Your task to perform on an android device: turn off translation in the chrome app Image 0: 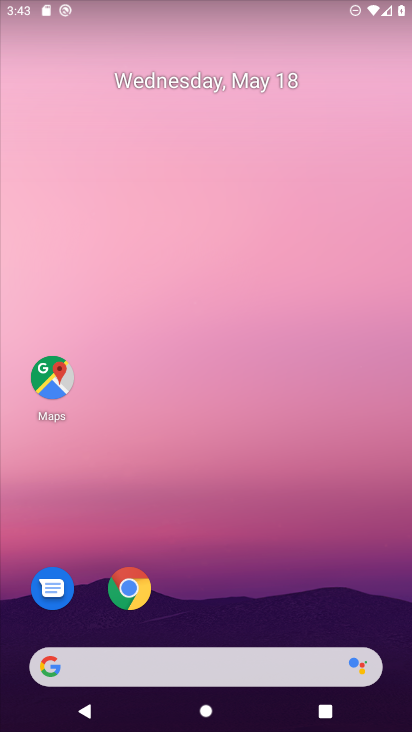
Step 0: drag from (267, 540) to (332, 127)
Your task to perform on an android device: turn off translation in the chrome app Image 1: 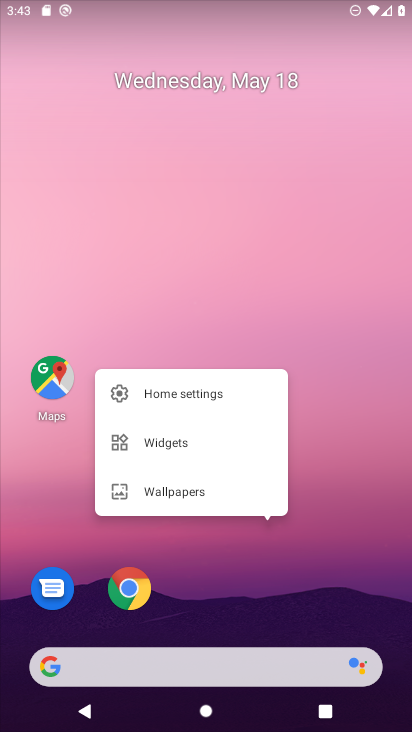
Step 1: click (103, 597)
Your task to perform on an android device: turn off translation in the chrome app Image 2: 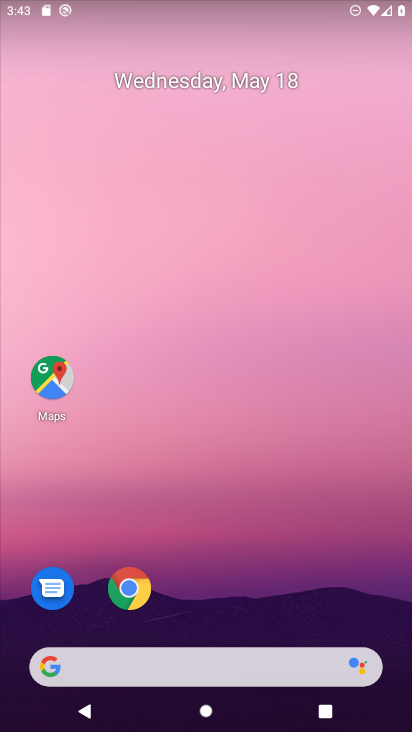
Step 2: click (137, 597)
Your task to perform on an android device: turn off translation in the chrome app Image 3: 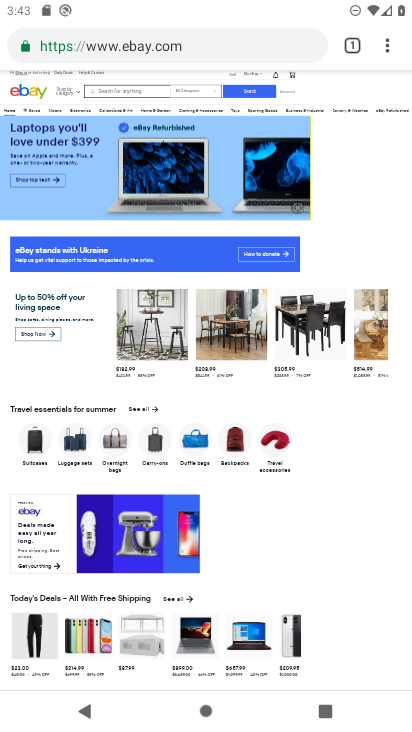
Step 3: click (384, 49)
Your task to perform on an android device: turn off translation in the chrome app Image 4: 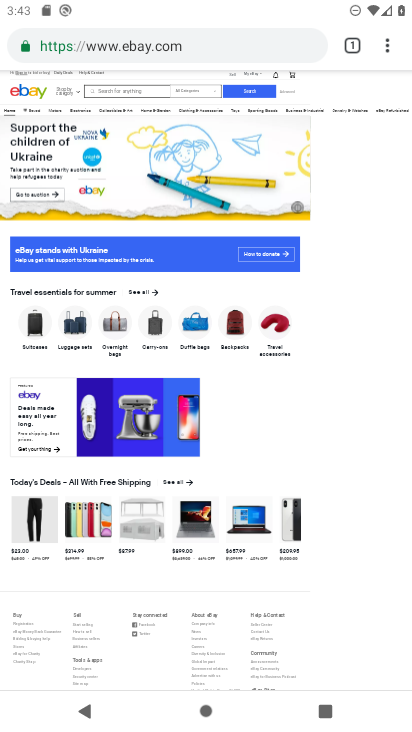
Step 4: click (391, 55)
Your task to perform on an android device: turn off translation in the chrome app Image 5: 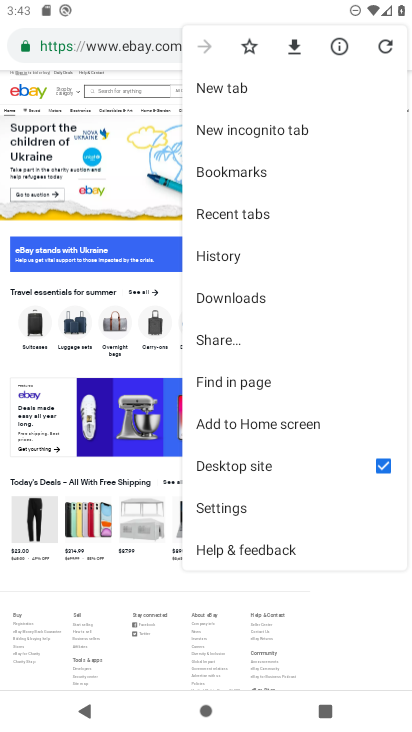
Step 5: click (231, 499)
Your task to perform on an android device: turn off translation in the chrome app Image 6: 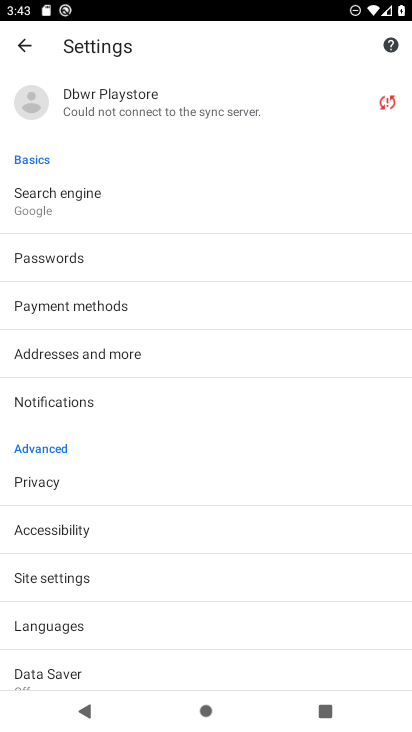
Step 6: click (79, 641)
Your task to perform on an android device: turn off translation in the chrome app Image 7: 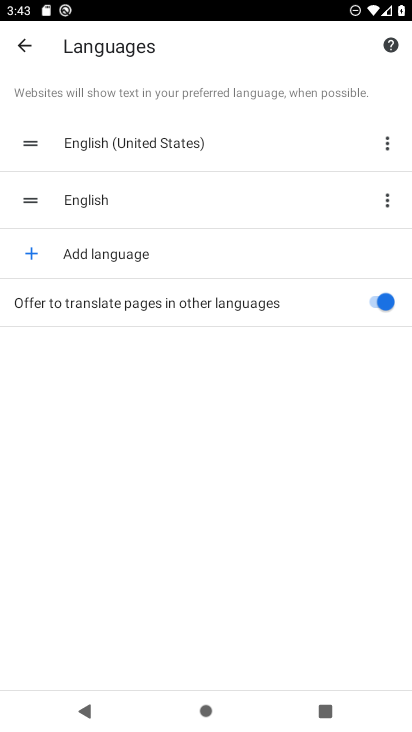
Step 7: click (238, 296)
Your task to perform on an android device: turn off translation in the chrome app Image 8: 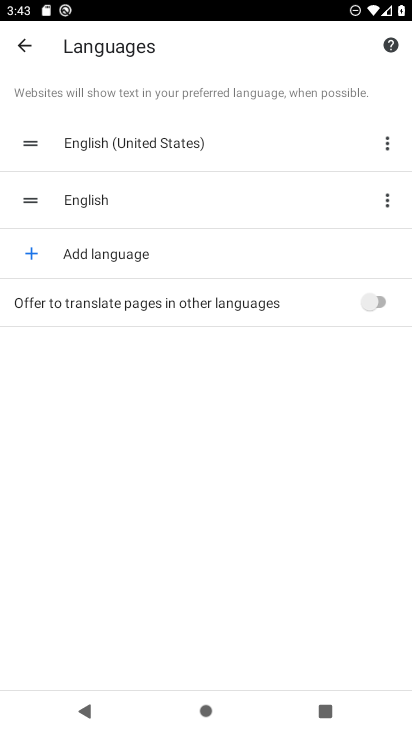
Step 8: task complete